Your task to perform on an android device: Do I have any events this weekend? Image 0: 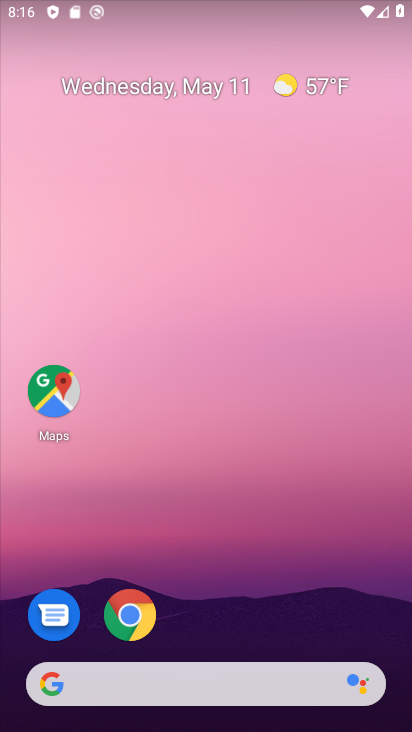
Step 0: drag from (230, 628) to (288, 256)
Your task to perform on an android device: Do I have any events this weekend? Image 1: 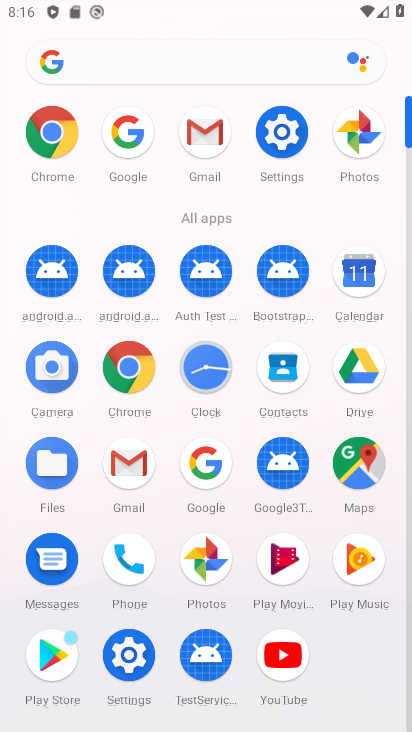
Step 1: click (364, 287)
Your task to perform on an android device: Do I have any events this weekend? Image 2: 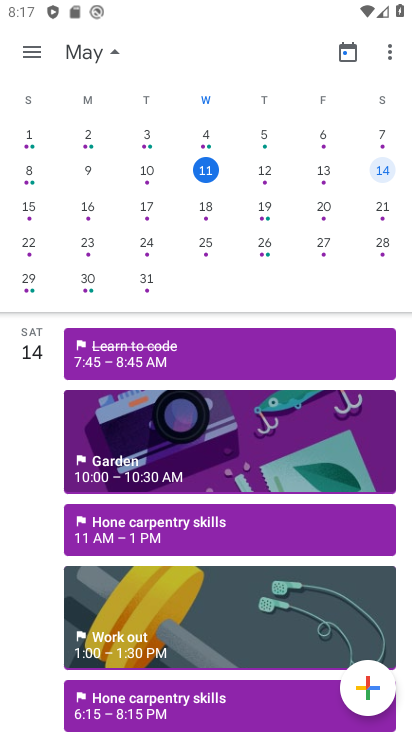
Step 2: click (326, 177)
Your task to perform on an android device: Do I have any events this weekend? Image 3: 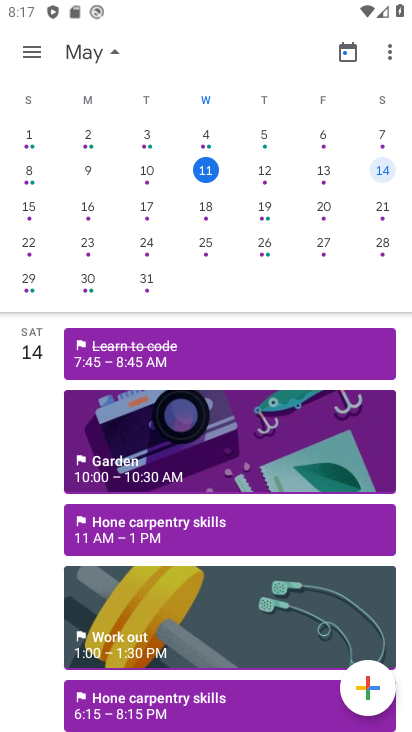
Step 3: click (379, 173)
Your task to perform on an android device: Do I have any events this weekend? Image 4: 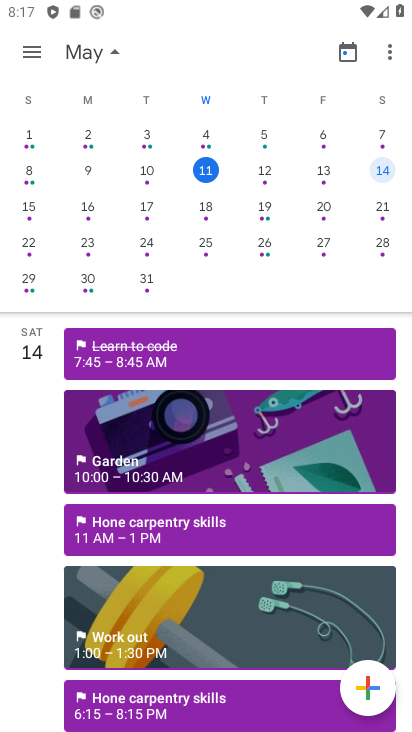
Step 4: click (320, 176)
Your task to perform on an android device: Do I have any events this weekend? Image 5: 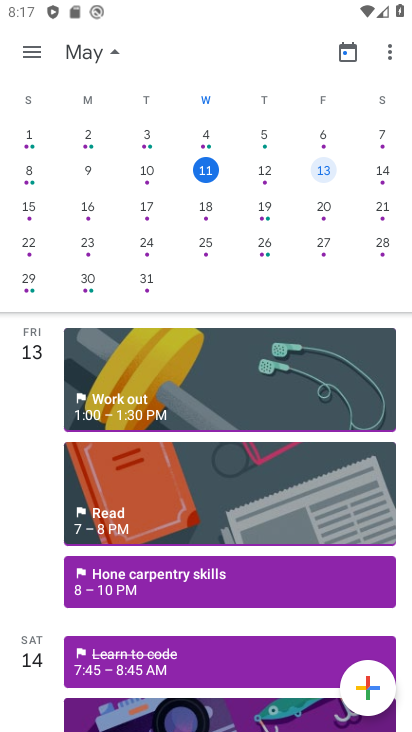
Step 5: click (376, 179)
Your task to perform on an android device: Do I have any events this weekend? Image 6: 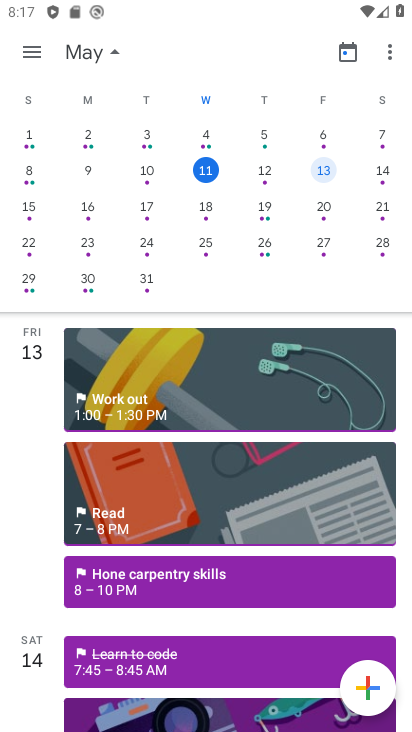
Step 6: click (384, 174)
Your task to perform on an android device: Do I have any events this weekend? Image 7: 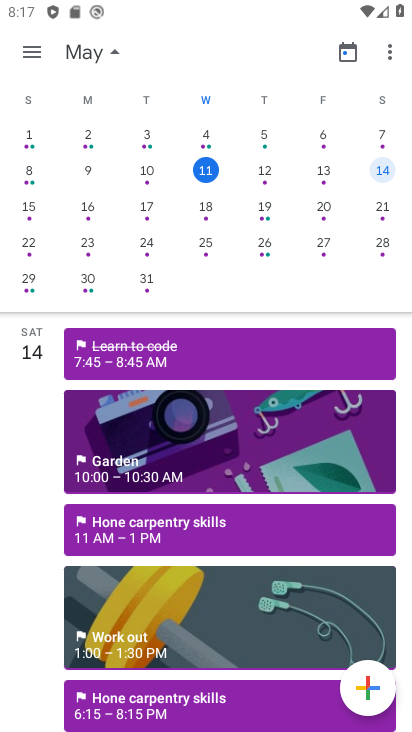
Step 7: task complete